Your task to perform on an android device: show emergency info Image 0: 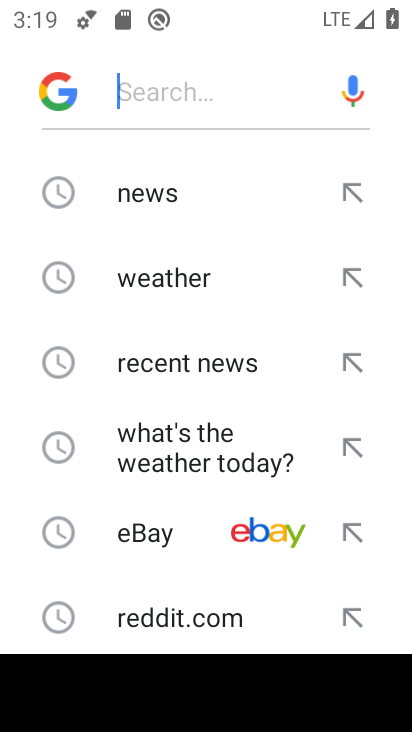
Step 0: press back button
Your task to perform on an android device: show emergency info Image 1: 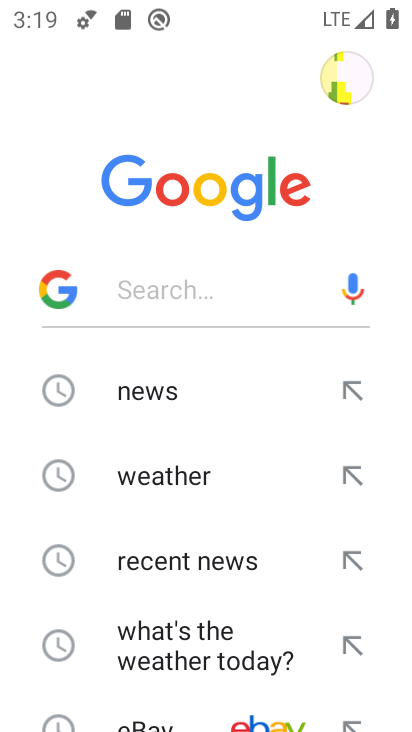
Step 1: press back button
Your task to perform on an android device: show emergency info Image 2: 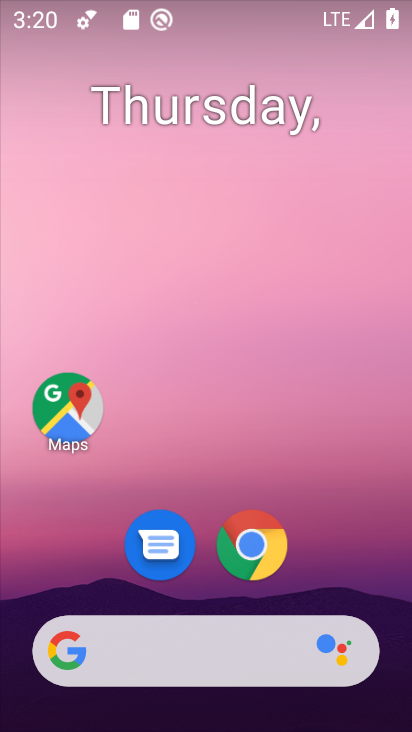
Step 2: drag from (321, 560) to (267, 84)
Your task to perform on an android device: show emergency info Image 3: 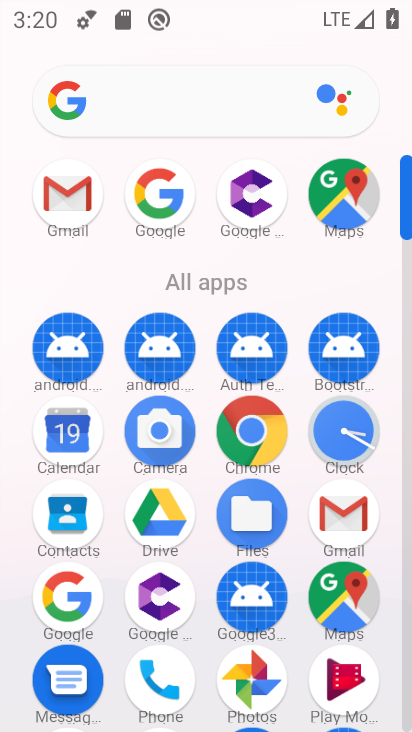
Step 3: drag from (206, 614) to (204, 294)
Your task to perform on an android device: show emergency info Image 4: 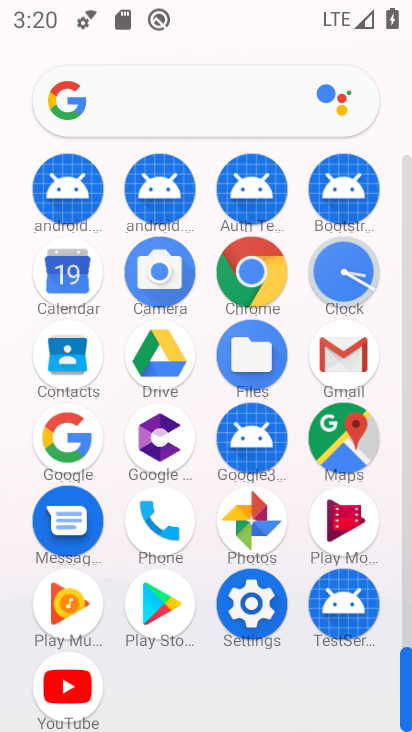
Step 4: click (252, 601)
Your task to perform on an android device: show emergency info Image 5: 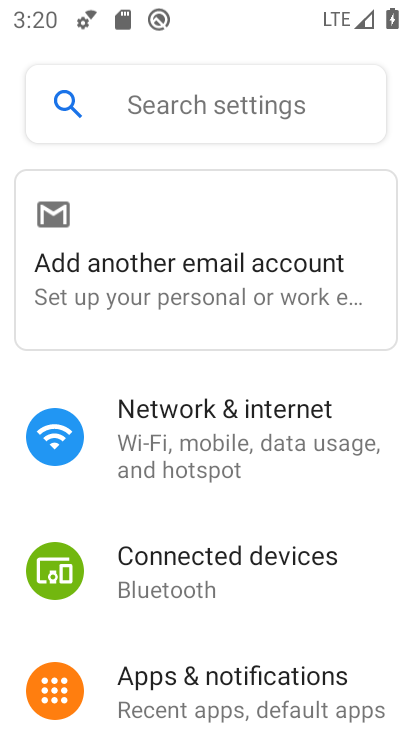
Step 5: drag from (202, 583) to (255, 476)
Your task to perform on an android device: show emergency info Image 6: 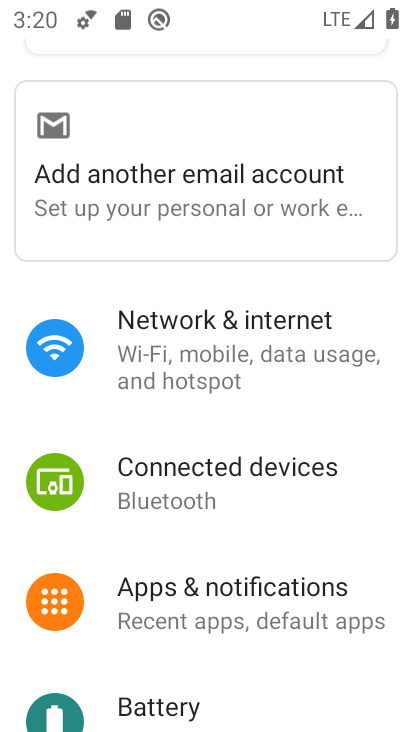
Step 6: drag from (199, 631) to (249, 517)
Your task to perform on an android device: show emergency info Image 7: 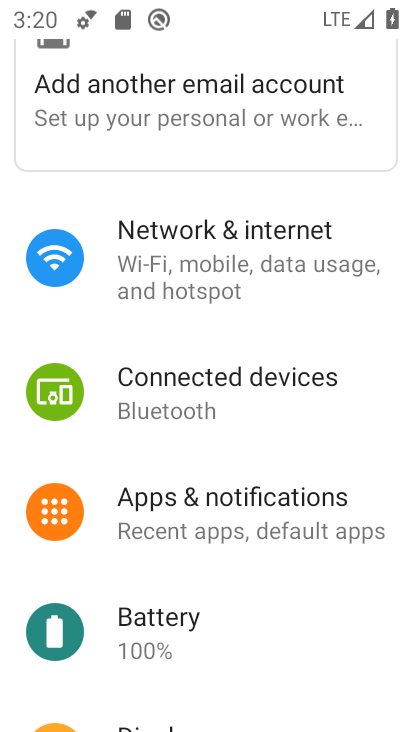
Step 7: drag from (232, 661) to (298, 507)
Your task to perform on an android device: show emergency info Image 8: 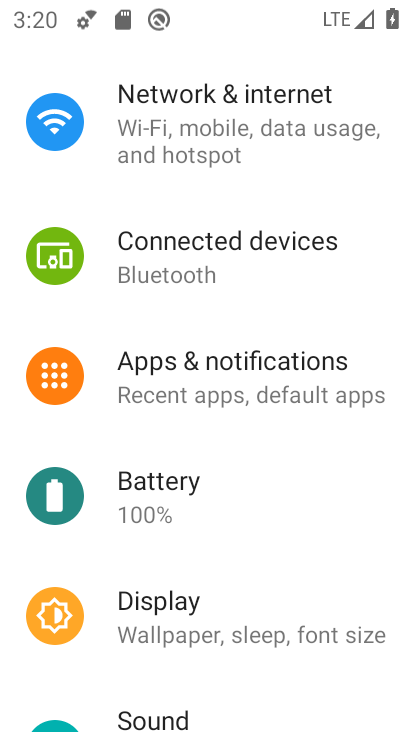
Step 8: drag from (224, 592) to (230, 464)
Your task to perform on an android device: show emergency info Image 9: 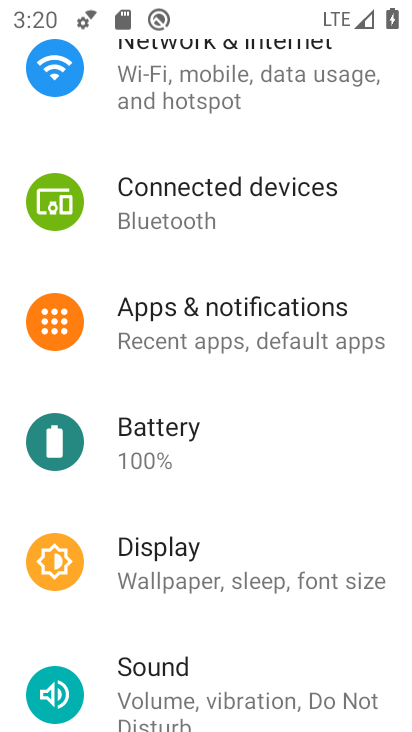
Step 9: drag from (237, 645) to (271, 480)
Your task to perform on an android device: show emergency info Image 10: 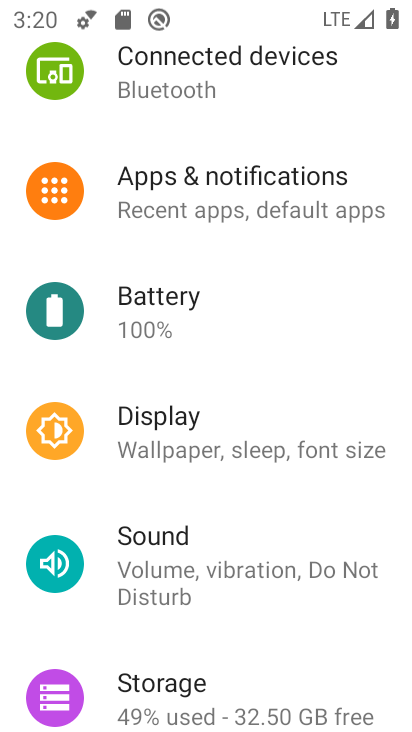
Step 10: drag from (230, 625) to (281, 464)
Your task to perform on an android device: show emergency info Image 11: 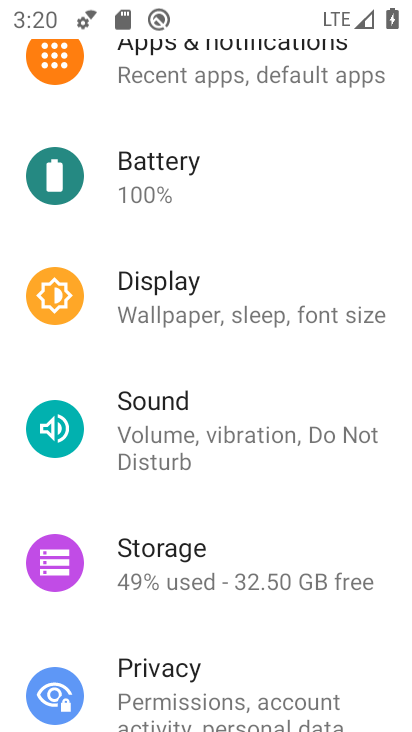
Step 11: drag from (232, 604) to (274, 443)
Your task to perform on an android device: show emergency info Image 12: 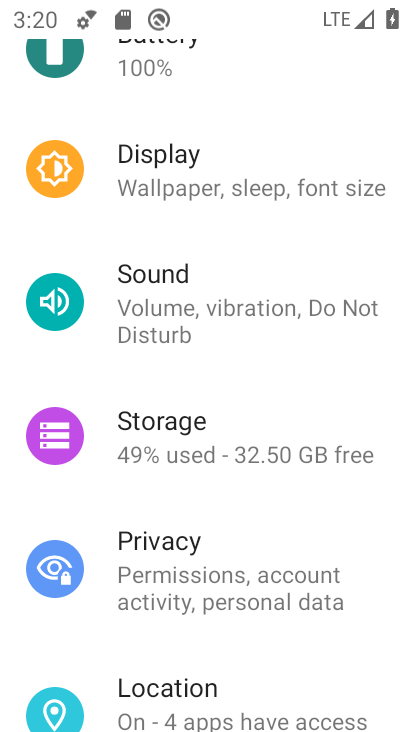
Step 12: drag from (245, 662) to (352, 457)
Your task to perform on an android device: show emergency info Image 13: 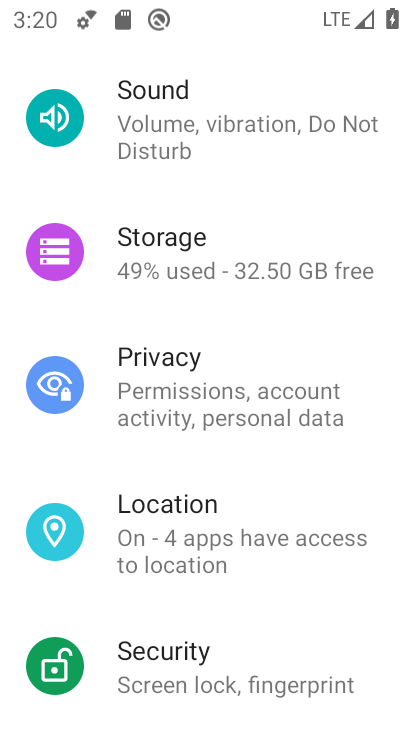
Step 13: drag from (250, 614) to (281, 493)
Your task to perform on an android device: show emergency info Image 14: 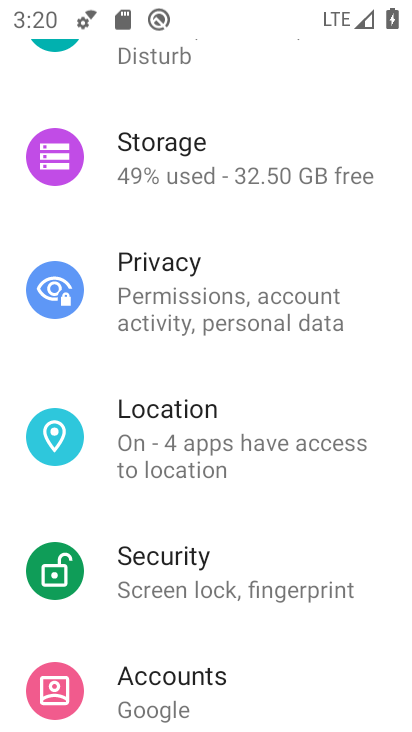
Step 14: drag from (257, 653) to (303, 467)
Your task to perform on an android device: show emergency info Image 15: 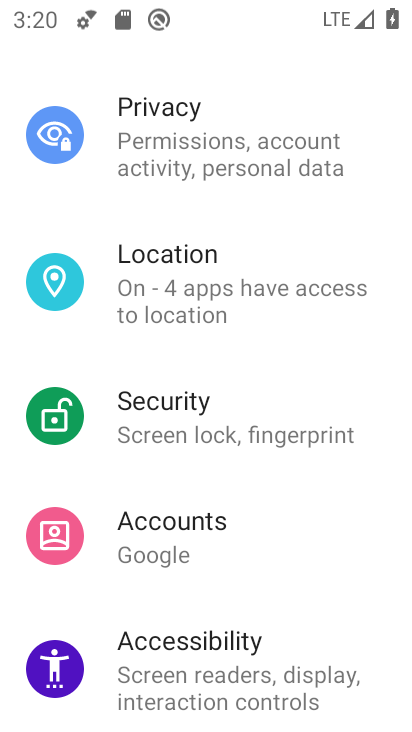
Step 15: drag from (236, 592) to (312, 447)
Your task to perform on an android device: show emergency info Image 16: 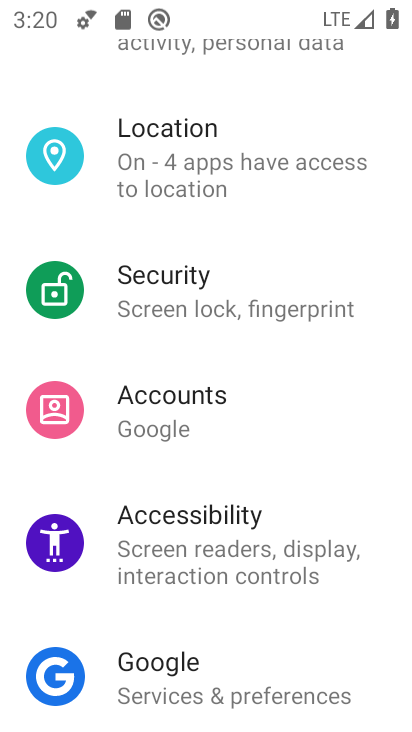
Step 16: drag from (261, 636) to (361, 407)
Your task to perform on an android device: show emergency info Image 17: 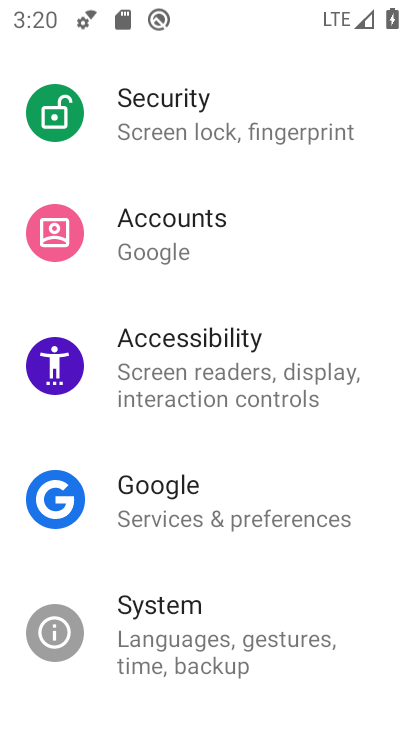
Step 17: drag from (277, 575) to (349, 435)
Your task to perform on an android device: show emergency info Image 18: 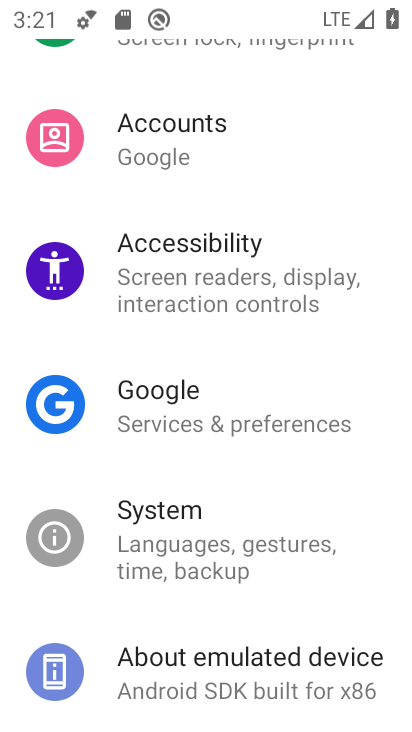
Step 18: click (274, 653)
Your task to perform on an android device: show emergency info Image 19: 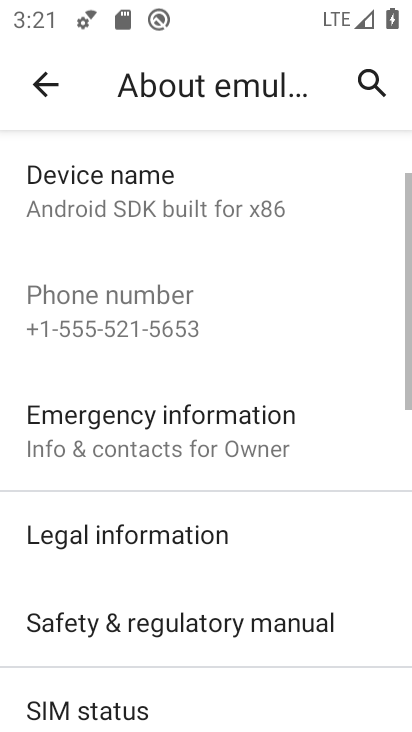
Step 19: click (239, 418)
Your task to perform on an android device: show emergency info Image 20: 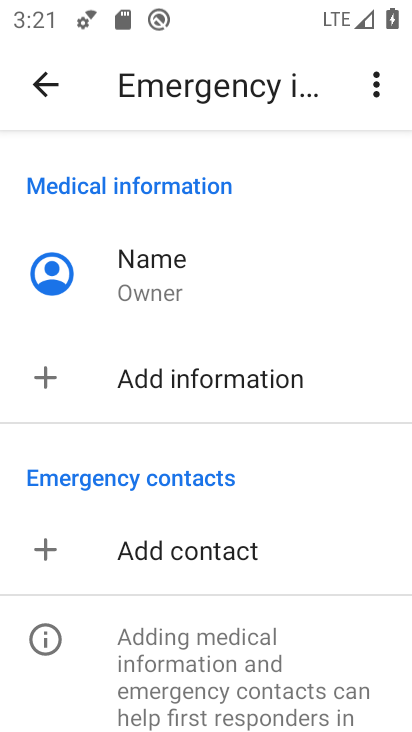
Step 20: task complete